Your task to perform on an android device: Open network settings Image 0: 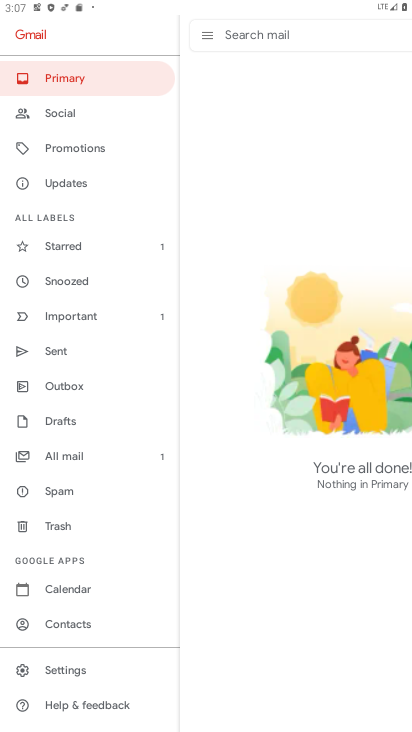
Step 0: press home button
Your task to perform on an android device: Open network settings Image 1: 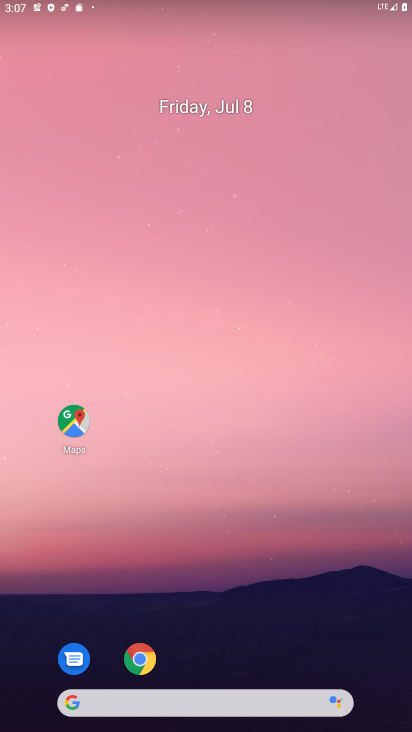
Step 1: drag from (193, 643) to (241, 248)
Your task to perform on an android device: Open network settings Image 2: 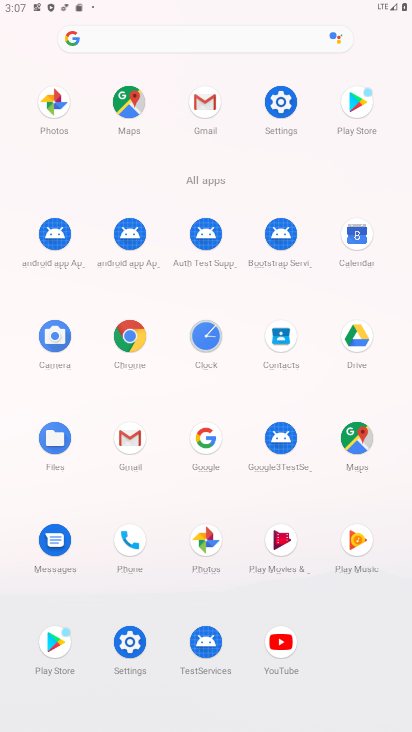
Step 2: click (281, 123)
Your task to perform on an android device: Open network settings Image 3: 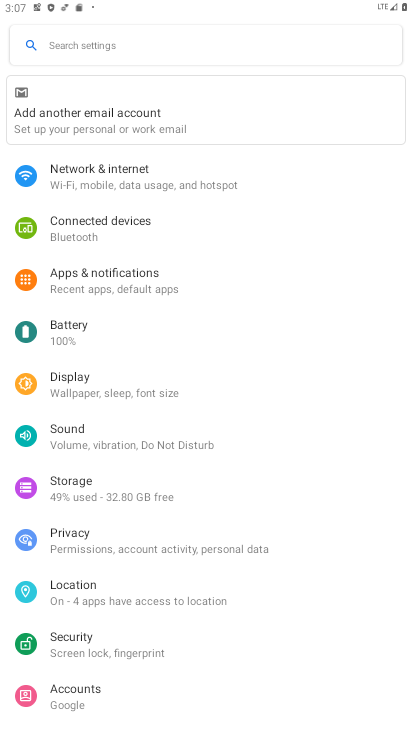
Step 3: click (128, 186)
Your task to perform on an android device: Open network settings Image 4: 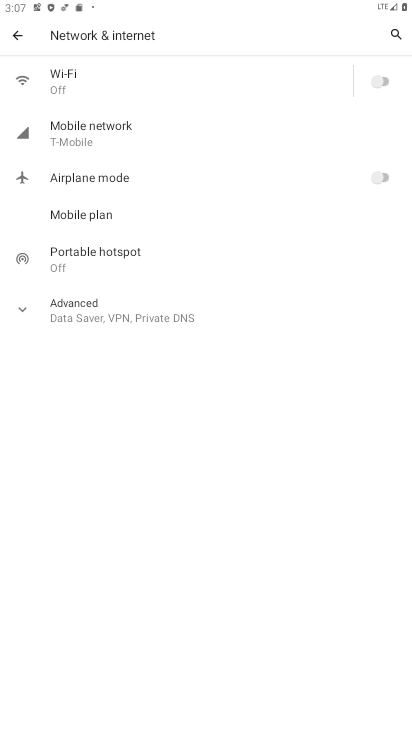
Step 4: task complete